Your task to perform on an android device: Open Maps and search for coffee Image 0: 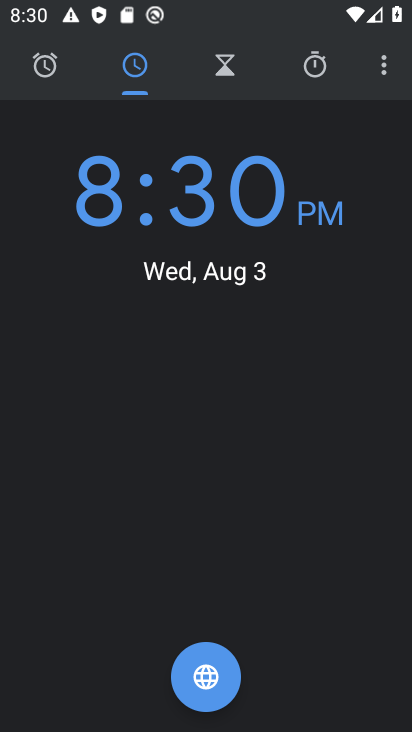
Step 0: press back button
Your task to perform on an android device: Open Maps and search for coffee Image 1: 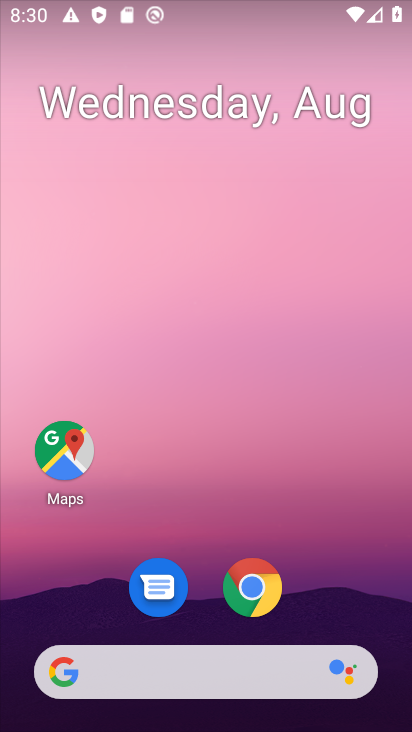
Step 1: drag from (351, 699) to (350, 99)
Your task to perform on an android device: Open Maps and search for coffee Image 2: 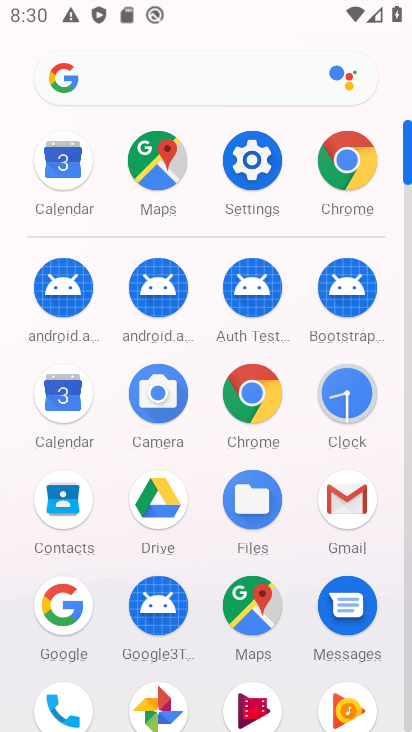
Step 2: click (152, 171)
Your task to perform on an android device: Open Maps and search for coffee Image 3: 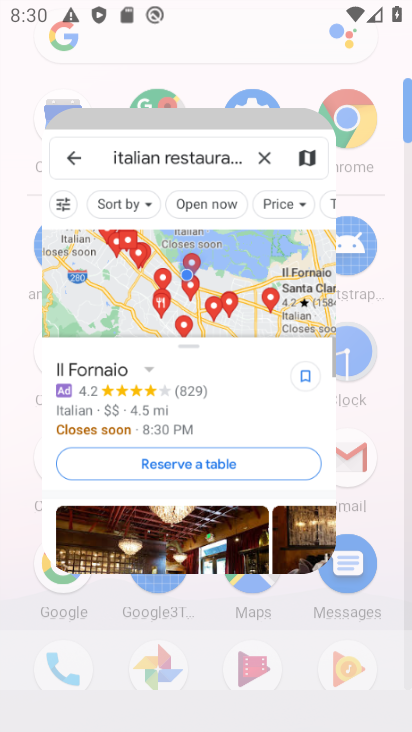
Step 3: click (149, 166)
Your task to perform on an android device: Open Maps and search for coffee Image 4: 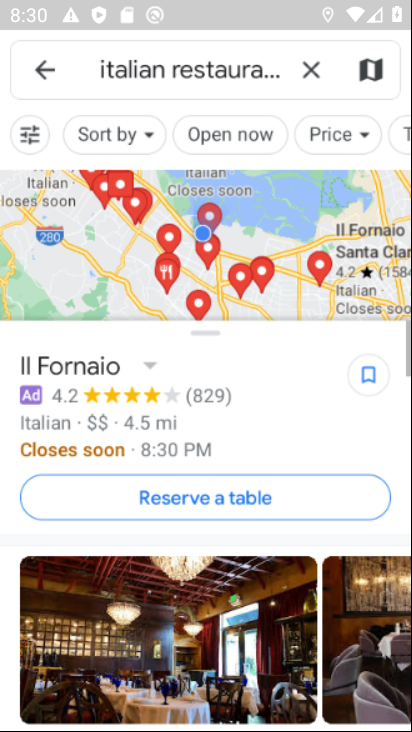
Step 4: click (309, 64)
Your task to perform on an android device: Open Maps and search for coffee Image 5: 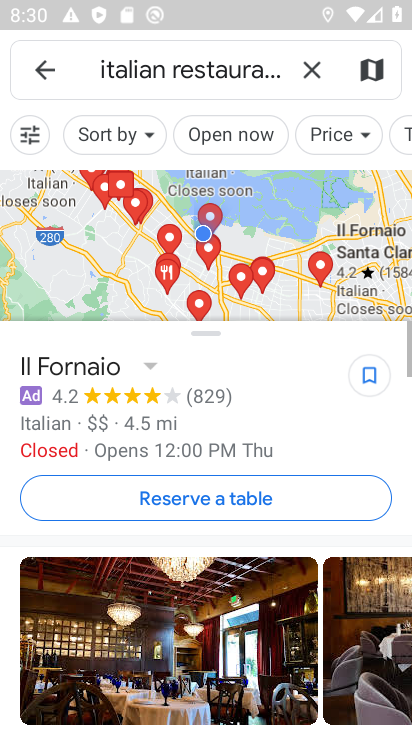
Step 5: click (317, 71)
Your task to perform on an android device: Open Maps and search for coffee Image 6: 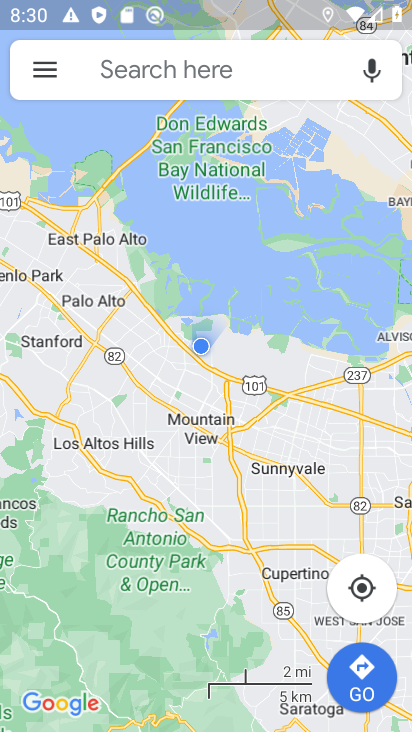
Step 6: click (125, 72)
Your task to perform on an android device: Open Maps and search for coffee Image 7: 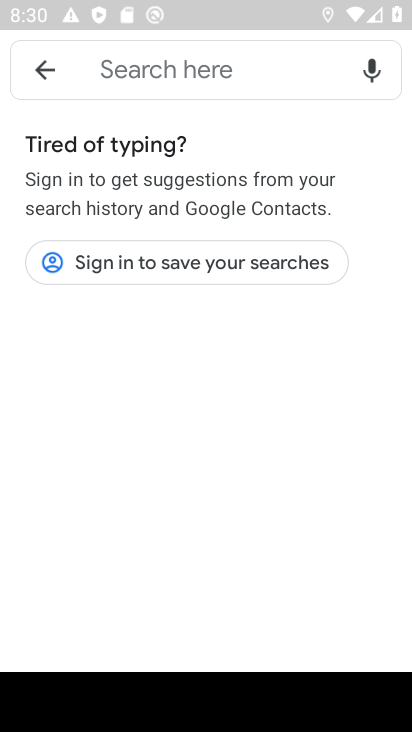
Step 7: type "coffee"
Your task to perform on an android device: Open Maps and search for coffee Image 8: 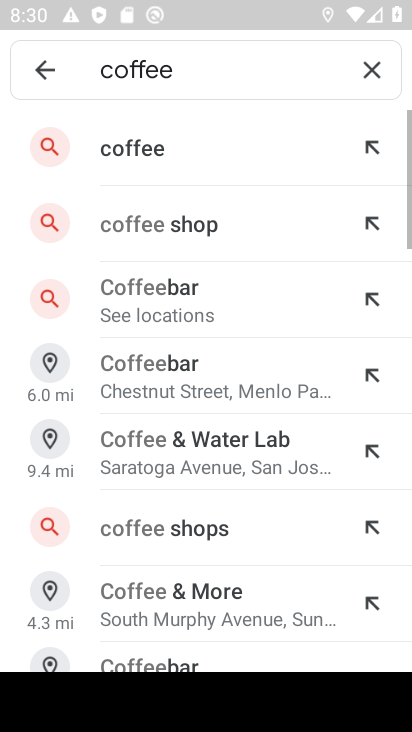
Step 8: click (146, 144)
Your task to perform on an android device: Open Maps and search for coffee Image 9: 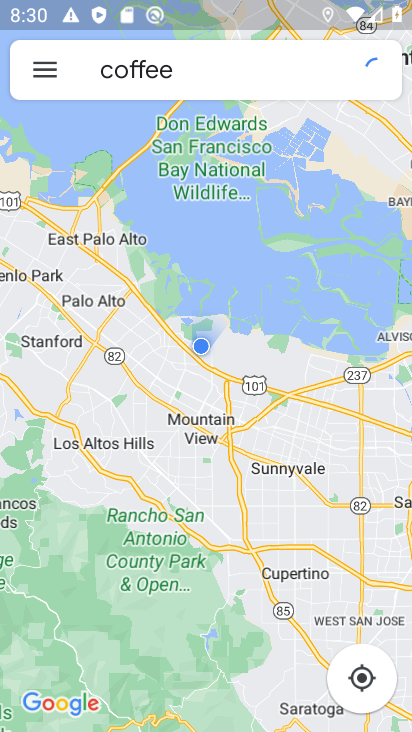
Step 9: task complete